Your task to perform on an android device: What is the news today? Image 0: 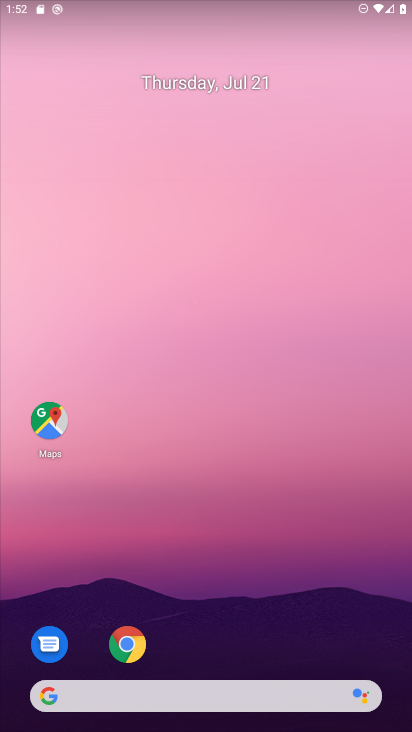
Step 0: click (239, 690)
Your task to perform on an android device: What is the news today? Image 1: 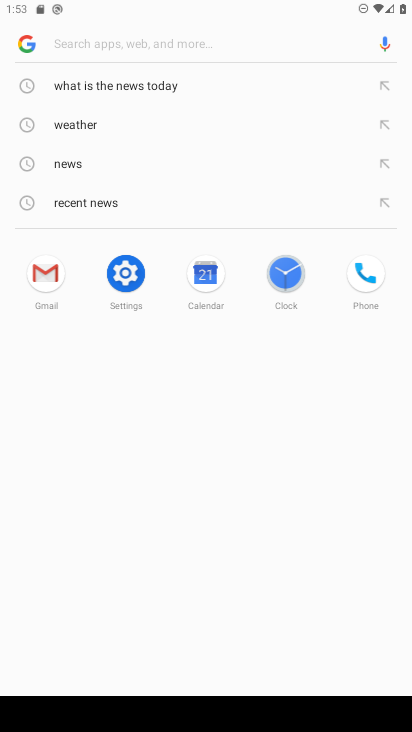
Step 1: type "what is the news today"
Your task to perform on an android device: What is the news today? Image 2: 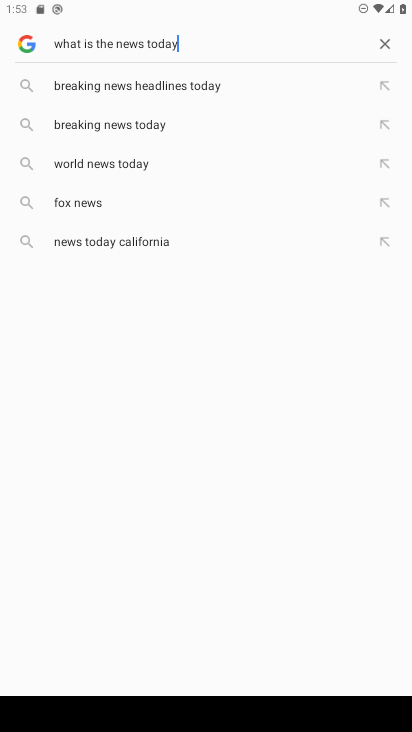
Step 2: click (183, 121)
Your task to perform on an android device: What is the news today? Image 3: 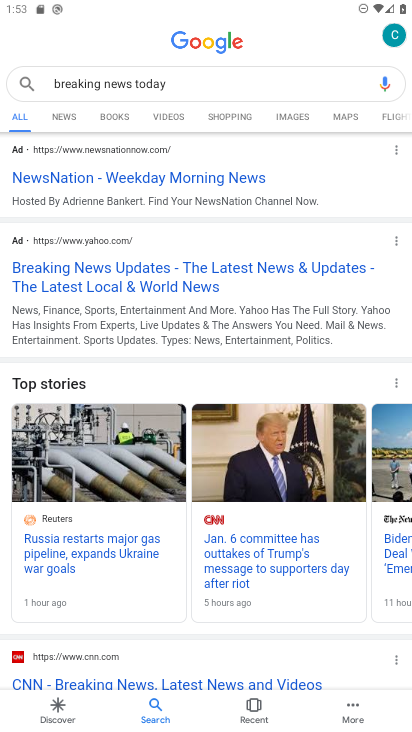
Step 3: click (62, 111)
Your task to perform on an android device: What is the news today? Image 4: 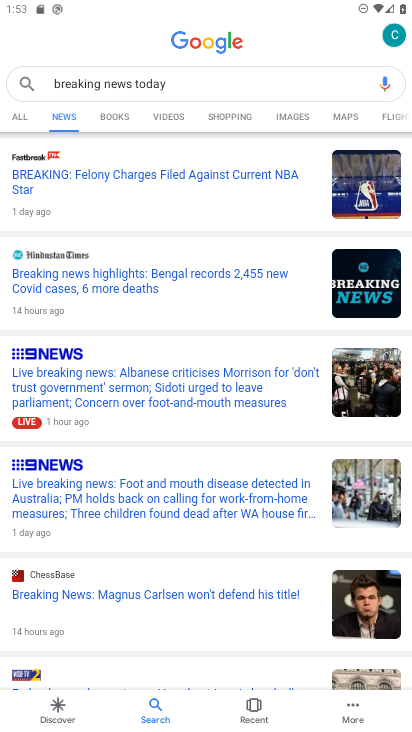
Step 4: task complete